Your task to perform on an android device: Go to Yahoo.com Image 0: 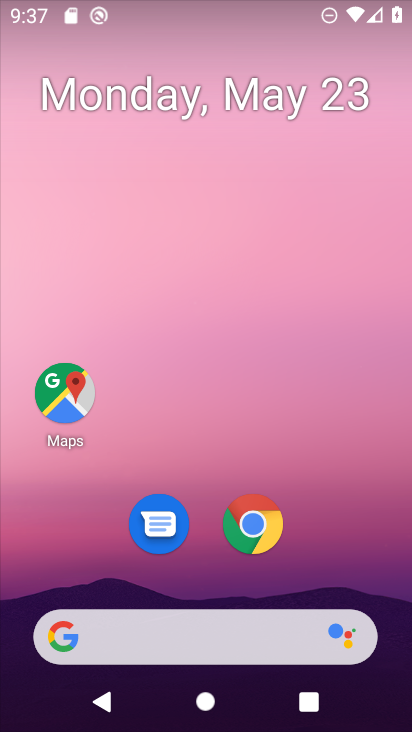
Step 0: click (256, 629)
Your task to perform on an android device: Go to Yahoo.com Image 1: 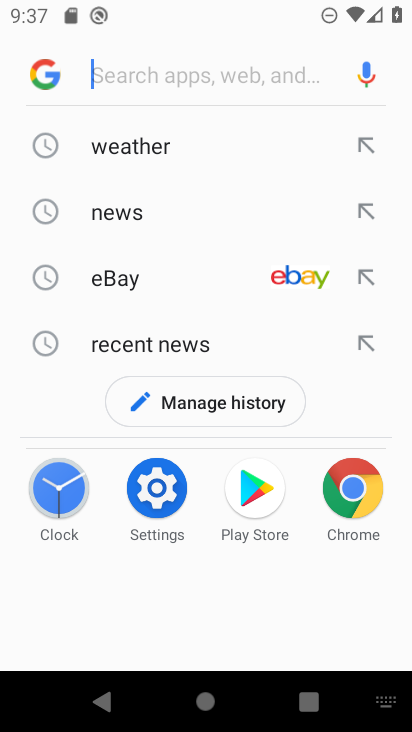
Step 1: type "yahoo.com"
Your task to perform on an android device: Go to Yahoo.com Image 2: 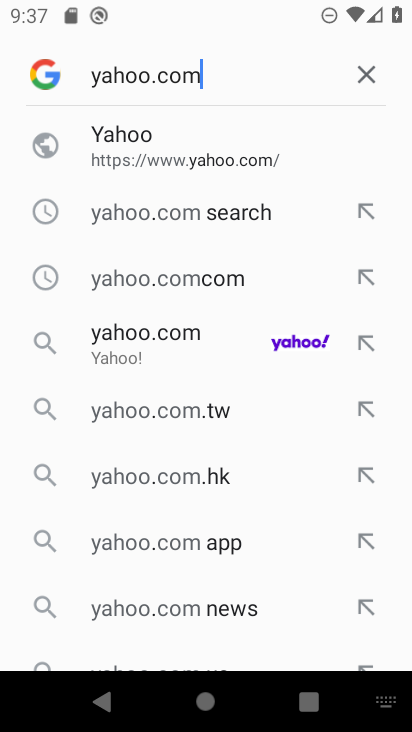
Step 2: click (95, 345)
Your task to perform on an android device: Go to Yahoo.com Image 3: 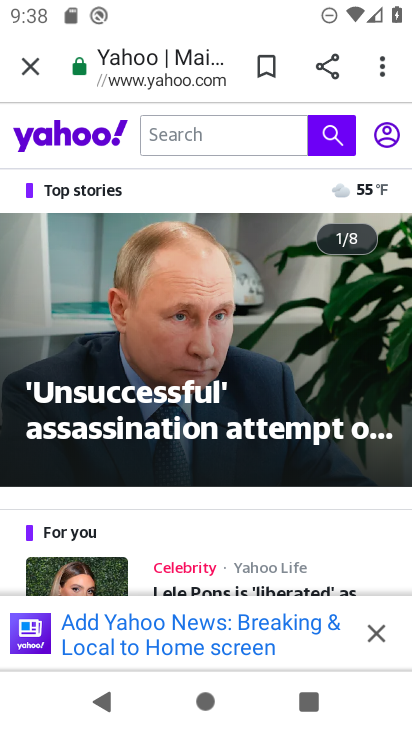
Step 3: task complete